Your task to perform on an android device: Go to network settings Image 0: 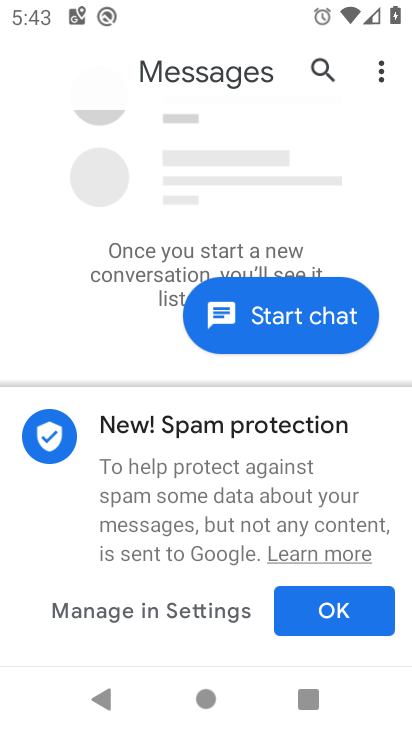
Step 0: press home button
Your task to perform on an android device: Go to network settings Image 1: 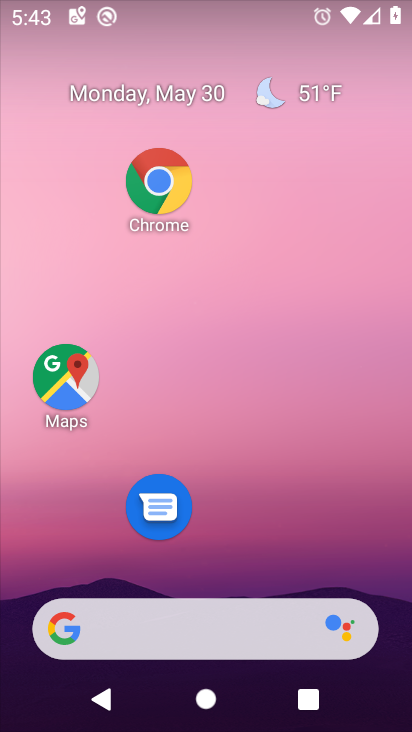
Step 1: drag from (294, 540) to (333, 71)
Your task to perform on an android device: Go to network settings Image 2: 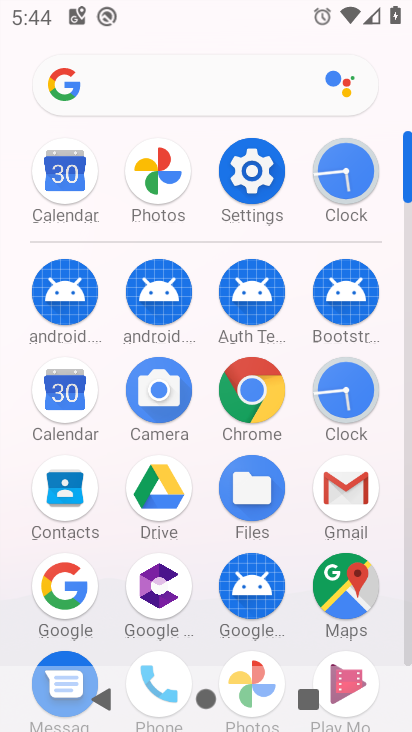
Step 2: click (253, 184)
Your task to perform on an android device: Go to network settings Image 3: 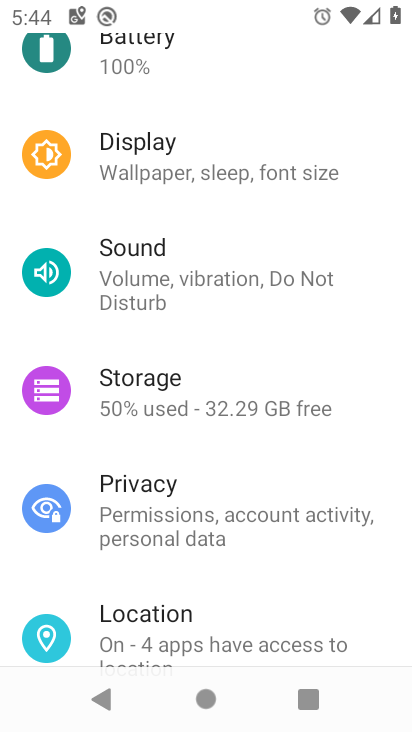
Step 3: drag from (253, 182) to (262, 728)
Your task to perform on an android device: Go to network settings Image 4: 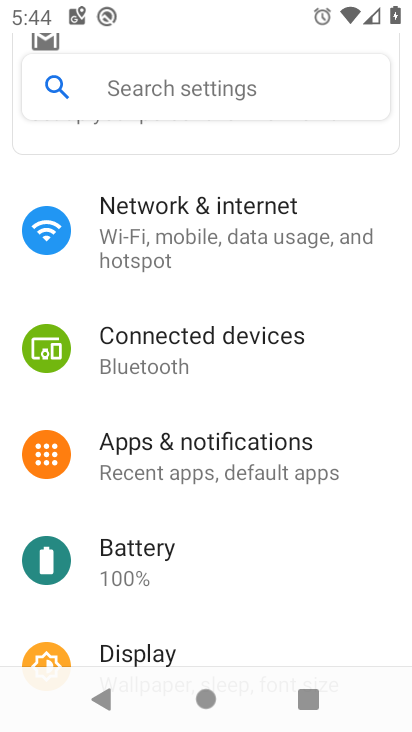
Step 4: click (182, 245)
Your task to perform on an android device: Go to network settings Image 5: 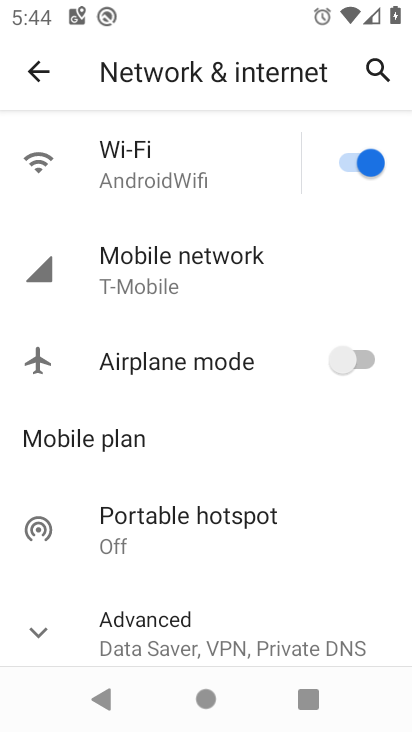
Step 5: task complete